Your task to perform on an android device: What is the news today? Image 0: 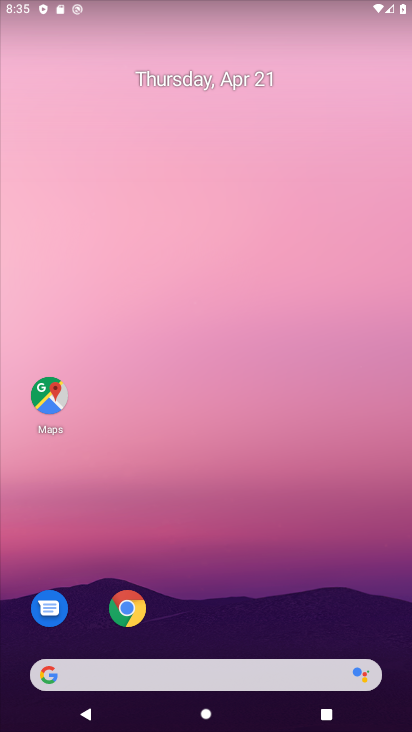
Step 0: drag from (350, 627) to (280, 138)
Your task to perform on an android device: What is the news today? Image 1: 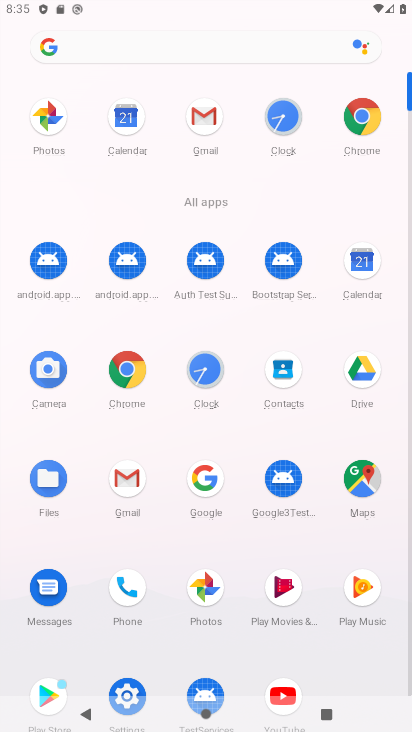
Step 1: click (362, 126)
Your task to perform on an android device: What is the news today? Image 2: 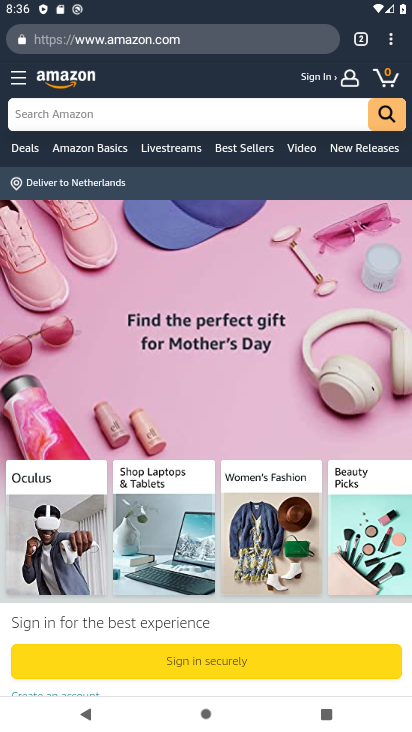
Step 2: click (241, 31)
Your task to perform on an android device: What is the news today? Image 3: 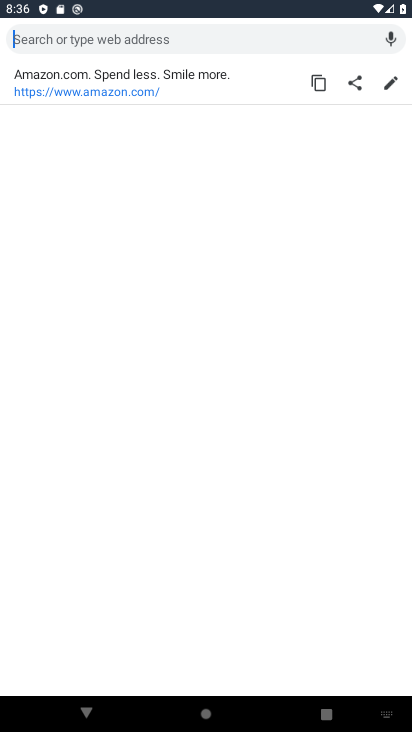
Step 3: type "What is the news today?"
Your task to perform on an android device: What is the news today? Image 4: 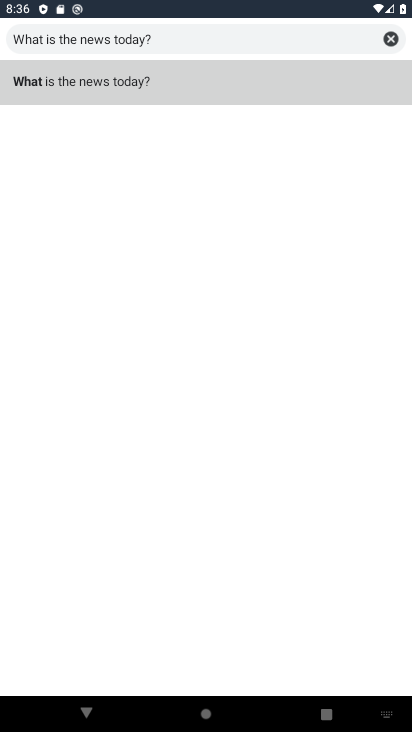
Step 4: click (105, 80)
Your task to perform on an android device: What is the news today? Image 5: 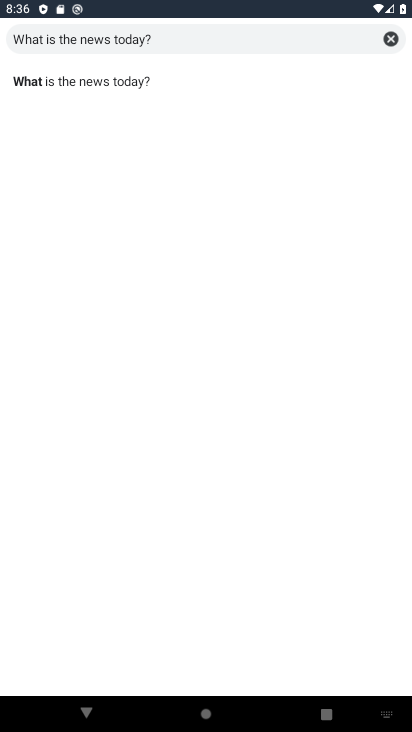
Step 5: click (105, 80)
Your task to perform on an android device: What is the news today? Image 6: 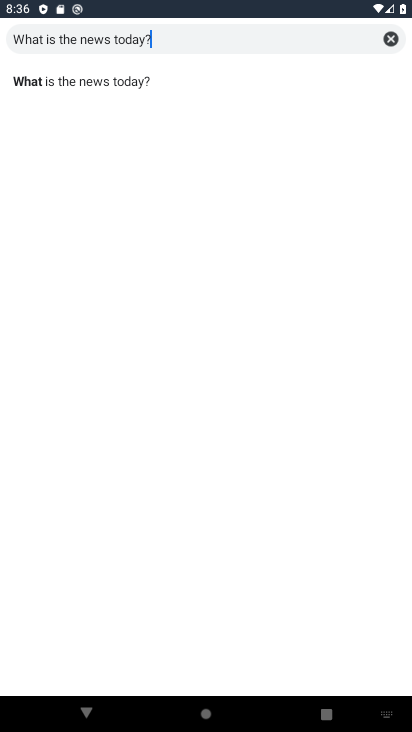
Step 6: press enter
Your task to perform on an android device: What is the news today? Image 7: 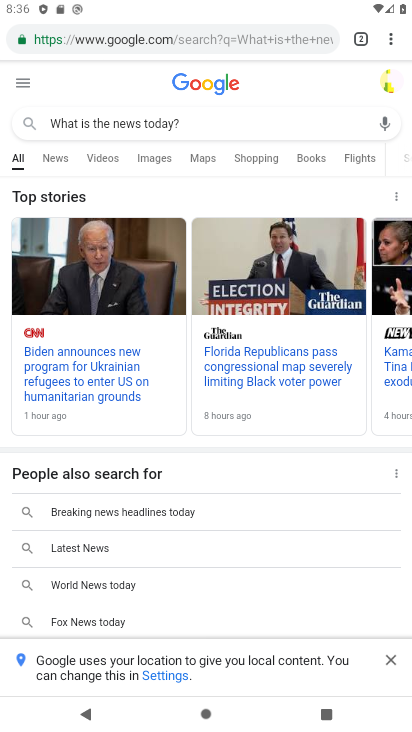
Step 7: task complete